Your task to perform on an android device: Search for seafood restaurants on Google Maps Image 0: 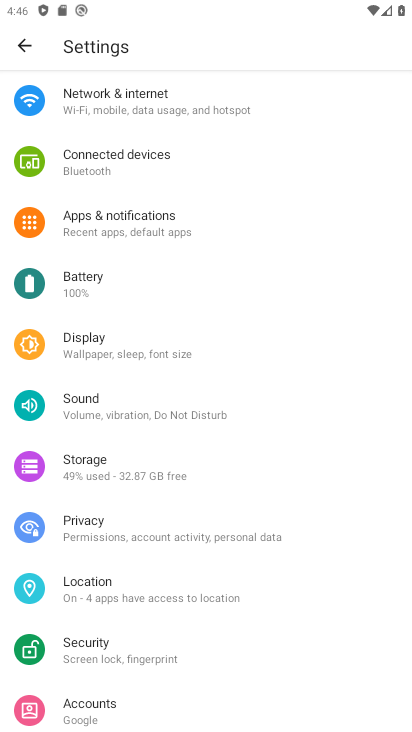
Step 0: press back button
Your task to perform on an android device: Search for seafood restaurants on Google Maps Image 1: 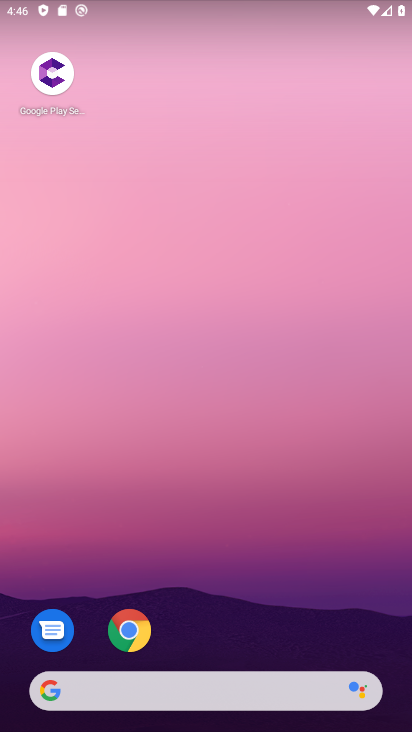
Step 1: drag from (289, 604) to (215, 2)
Your task to perform on an android device: Search for seafood restaurants on Google Maps Image 2: 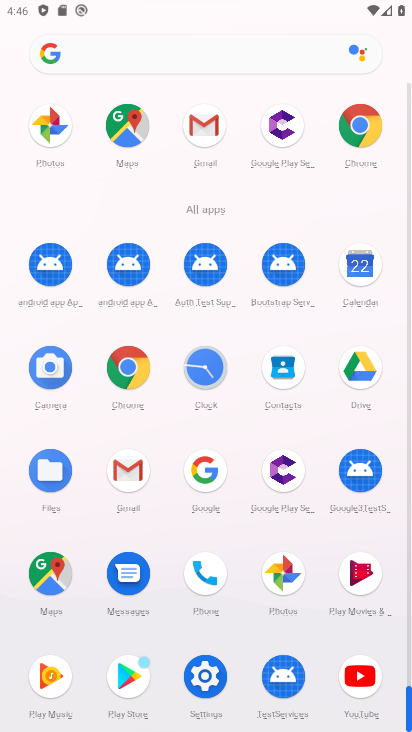
Step 2: click (46, 572)
Your task to perform on an android device: Search for seafood restaurants on Google Maps Image 3: 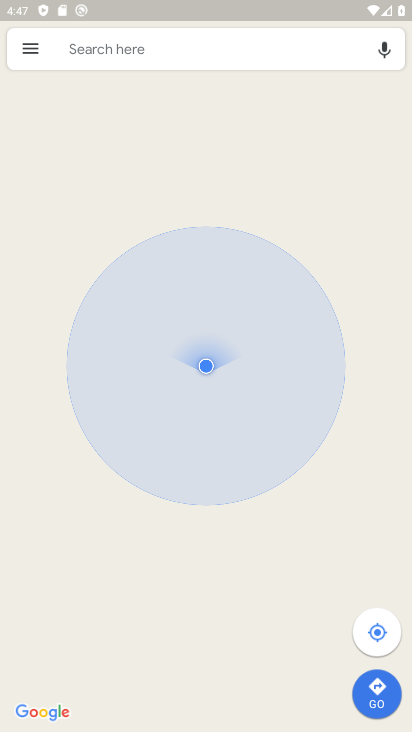
Step 3: click (197, 47)
Your task to perform on an android device: Search for seafood restaurants on Google Maps Image 4: 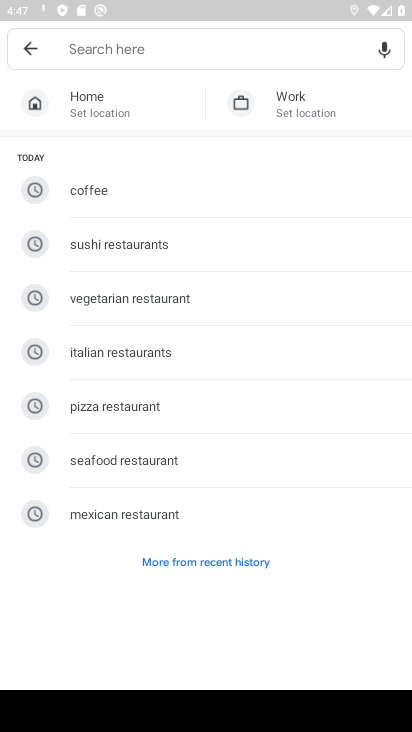
Step 4: click (145, 453)
Your task to perform on an android device: Search for seafood restaurants on Google Maps Image 5: 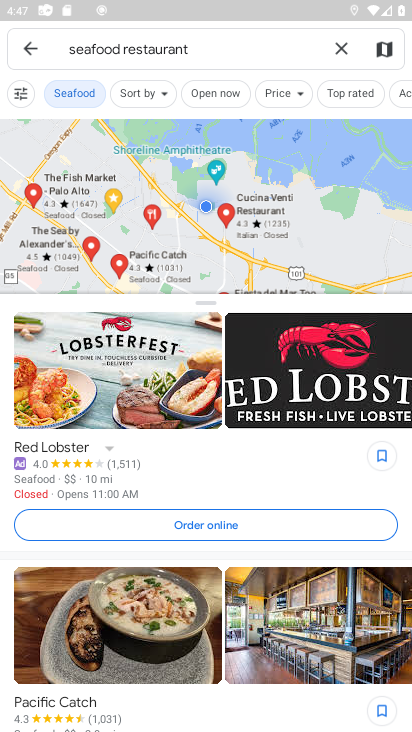
Step 5: task complete